Your task to perform on an android device: change keyboard looks Image 0: 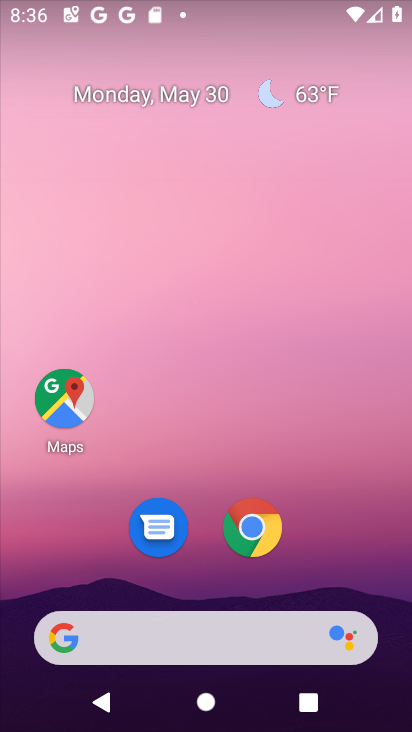
Step 0: drag from (348, 565) to (285, 89)
Your task to perform on an android device: change keyboard looks Image 1: 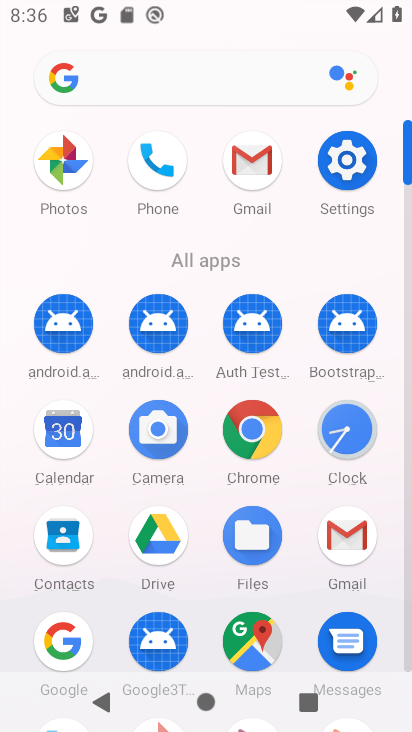
Step 1: click (328, 162)
Your task to perform on an android device: change keyboard looks Image 2: 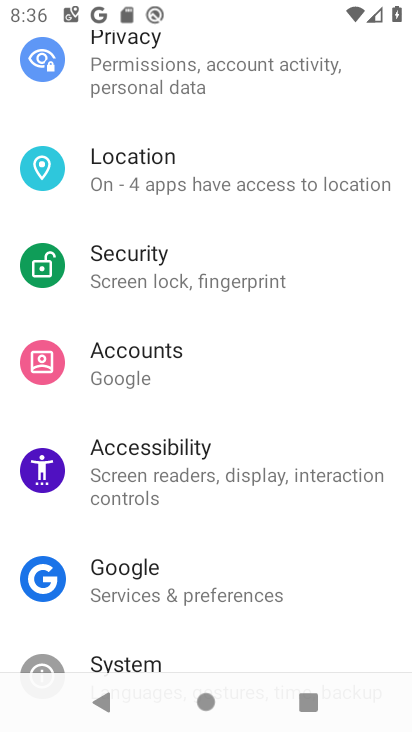
Step 2: drag from (218, 510) to (222, 391)
Your task to perform on an android device: change keyboard looks Image 3: 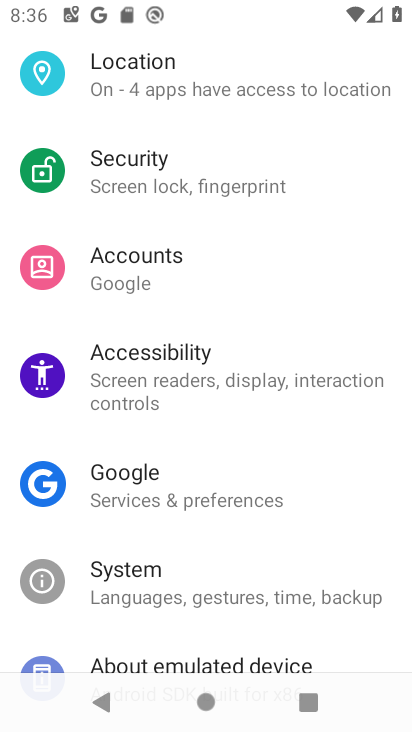
Step 3: drag from (254, 575) to (250, 422)
Your task to perform on an android device: change keyboard looks Image 4: 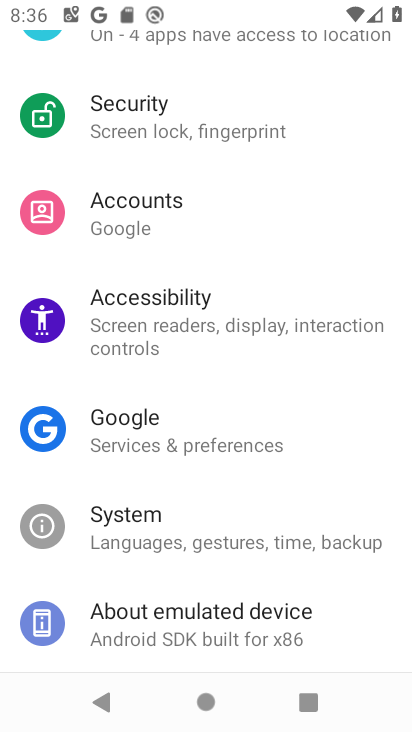
Step 4: click (222, 523)
Your task to perform on an android device: change keyboard looks Image 5: 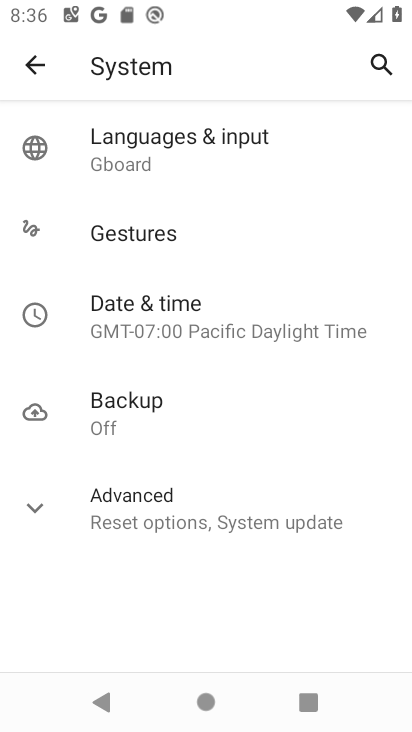
Step 5: click (175, 156)
Your task to perform on an android device: change keyboard looks Image 6: 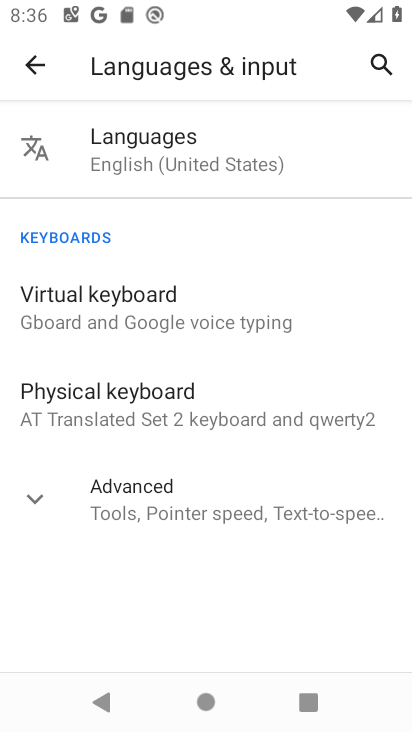
Step 6: click (144, 323)
Your task to perform on an android device: change keyboard looks Image 7: 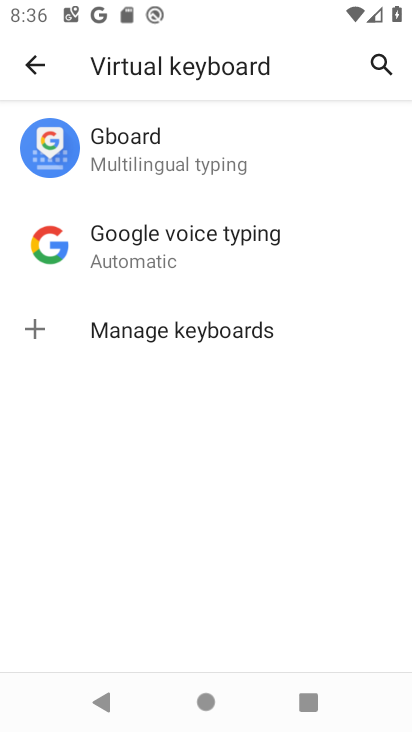
Step 7: click (131, 127)
Your task to perform on an android device: change keyboard looks Image 8: 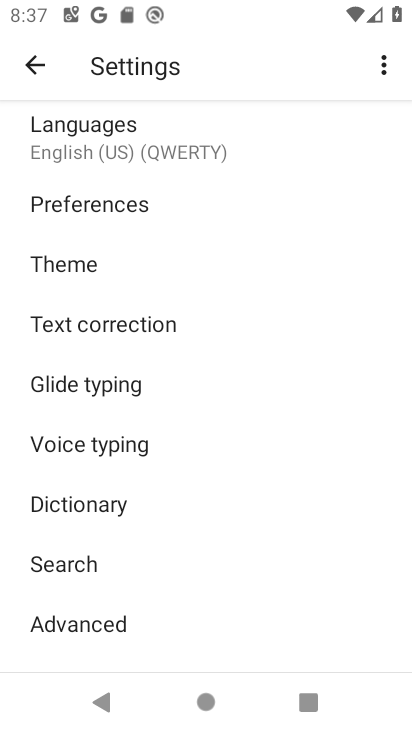
Step 8: click (107, 269)
Your task to perform on an android device: change keyboard looks Image 9: 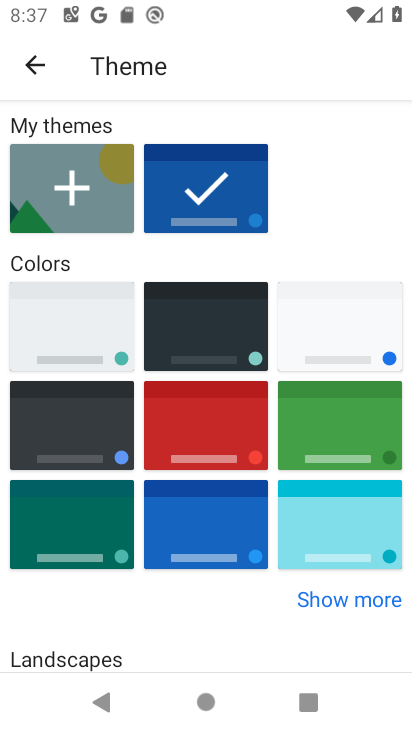
Step 9: task complete